Your task to perform on an android device: Open Youtube and go to "Your channel" Image 0: 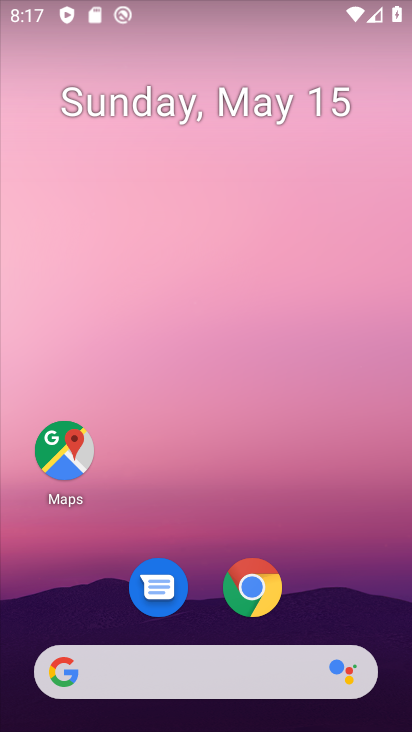
Step 0: drag from (386, 622) to (268, 82)
Your task to perform on an android device: Open Youtube and go to "Your channel" Image 1: 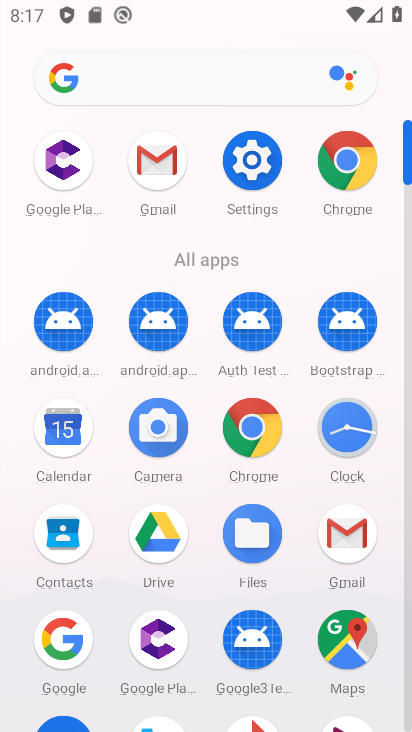
Step 1: drag from (300, 688) to (248, 120)
Your task to perform on an android device: Open Youtube and go to "Your channel" Image 2: 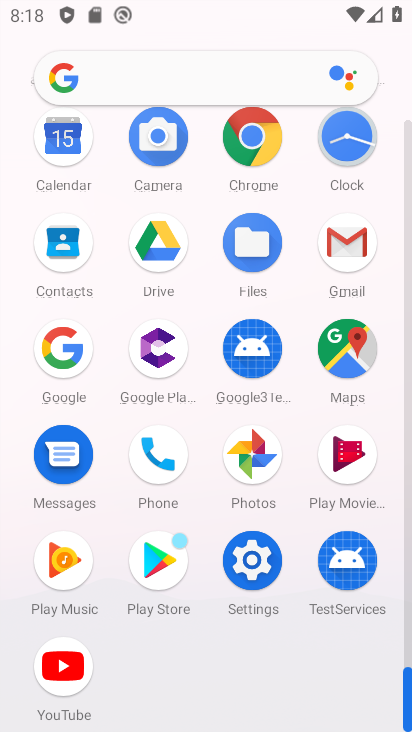
Step 2: click (64, 674)
Your task to perform on an android device: Open Youtube and go to "Your channel" Image 3: 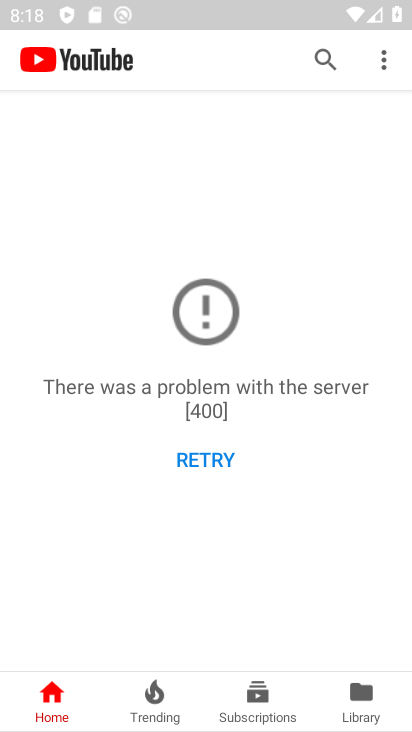
Step 3: task complete